Your task to perform on an android device: toggle notifications settings in the gmail app Image 0: 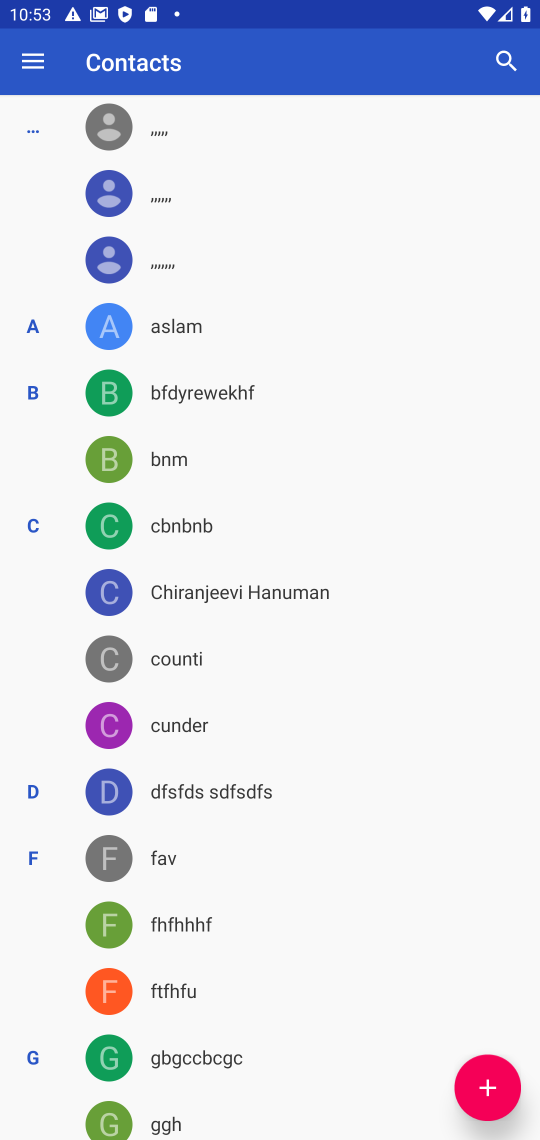
Step 0: press home button
Your task to perform on an android device: toggle notifications settings in the gmail app Image 1: 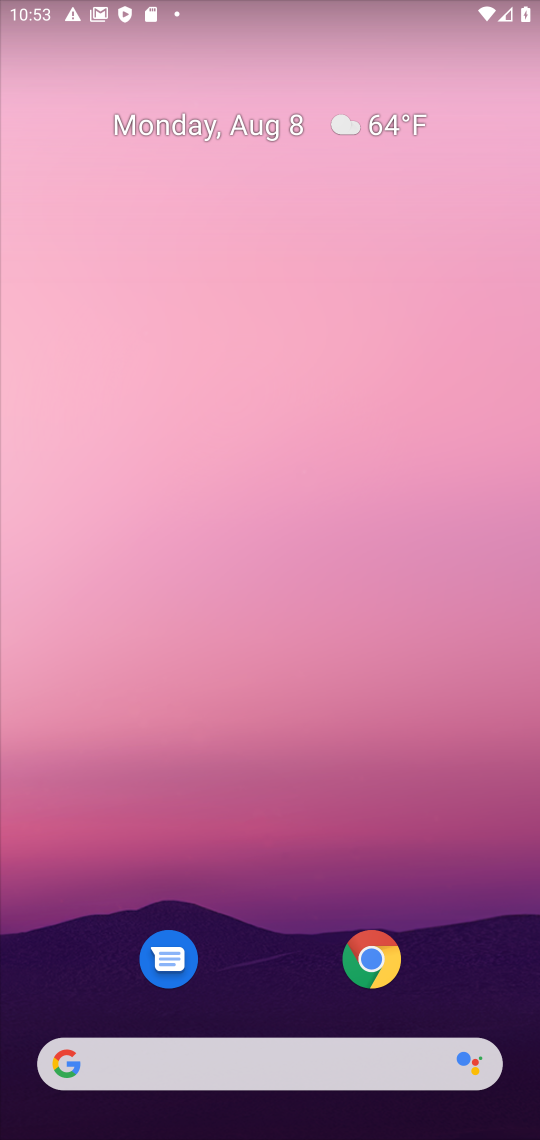
Step 1: drag from (453, 982) to (310, 179)
Your task to perform on an android device: toggle notifications settings in the gmail app Image 2: 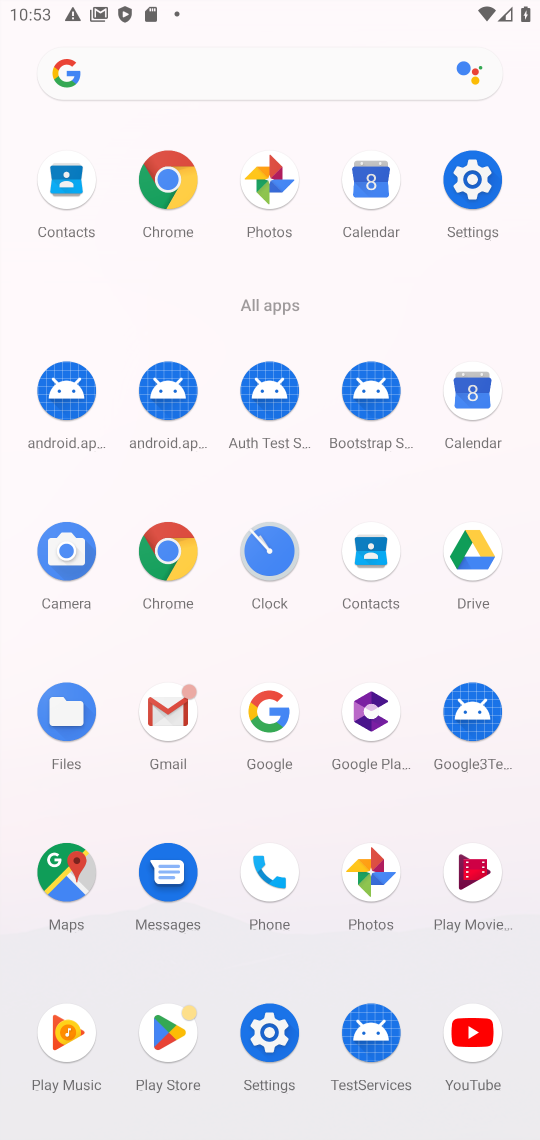
Step 2: click (154, 751)
Your task to perform on an android device: toggle notifications settings in the gmail app Image 3: 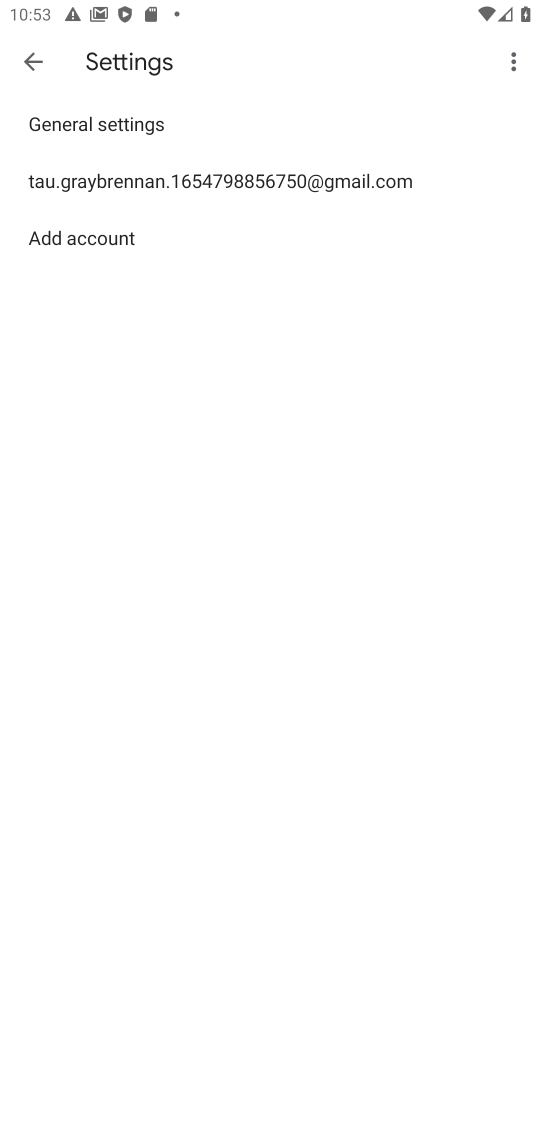
Step 3: click (306, 194)
Your task to perform on an android device: toggle notifications settings in the gmail app Image 4: 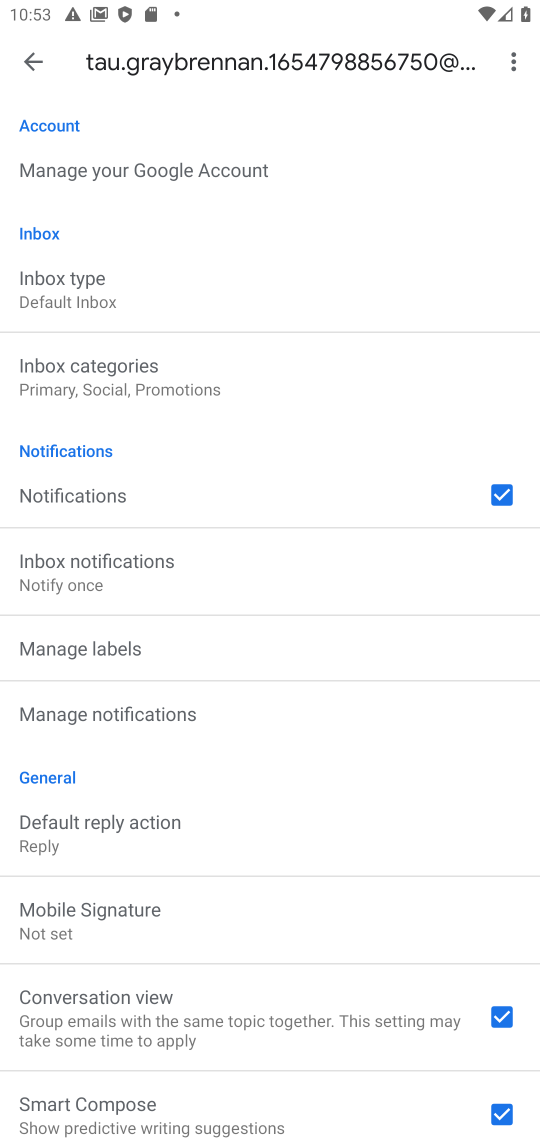
Step 4: click (251, 718)
Your task to perform on an android device: toggle notifications settings in the gmail app Image 5: 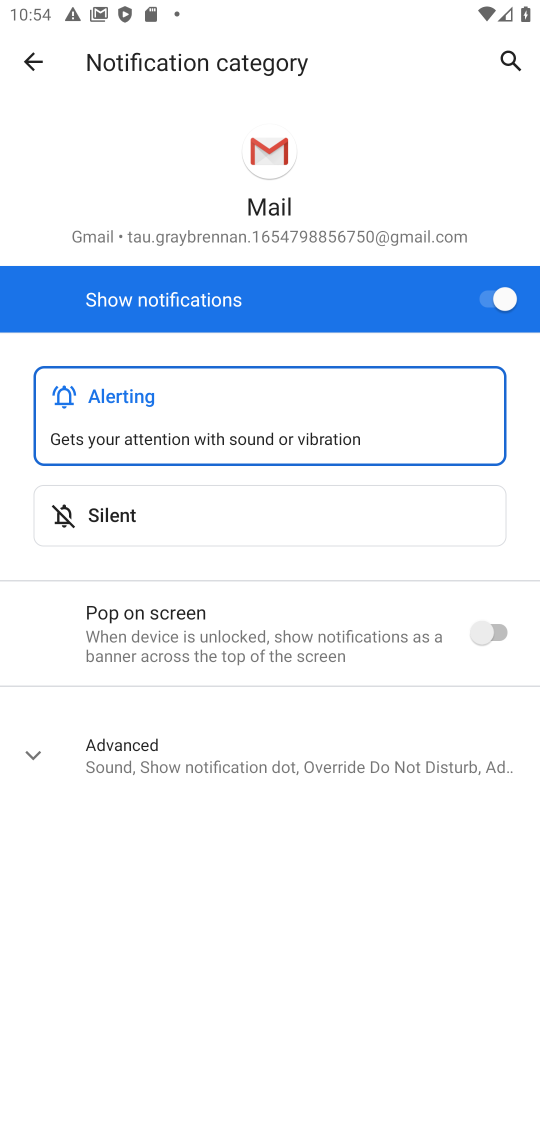
Step 5: click (403, 518)
Your task to perform on an android device: toggle notifications settings in the gmail app Image 6: 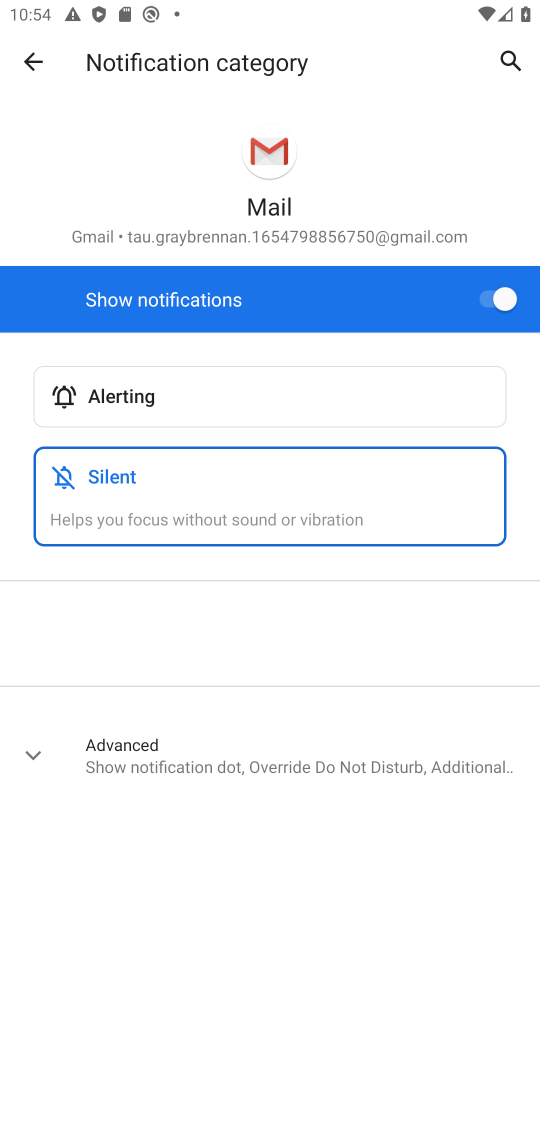
Step 6: click (501, 628)
Your task to perform on an android device: toggle notifications settings in the gmail app Image 7: 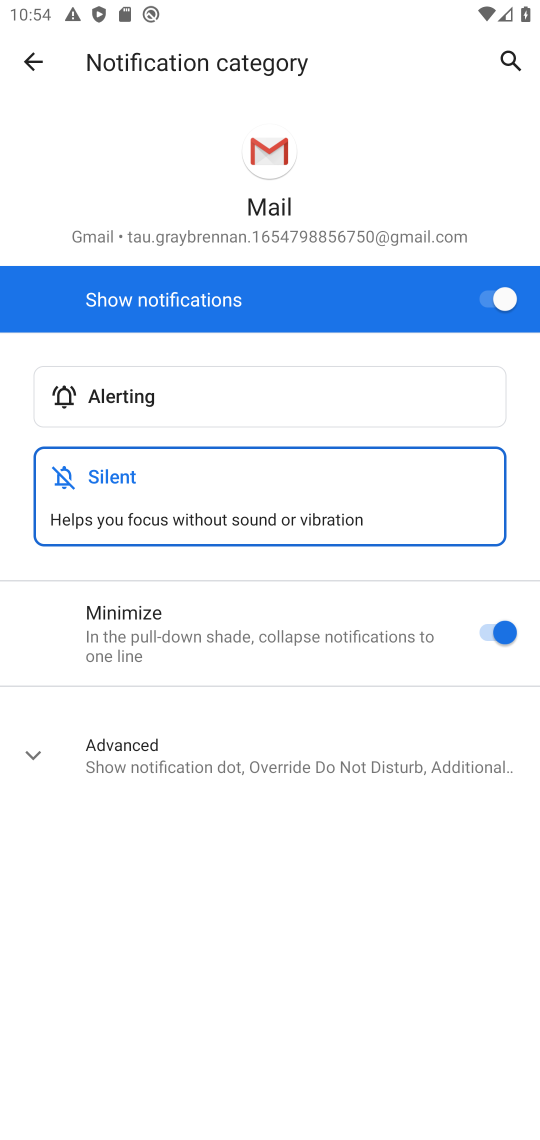
Step 7: task complete